Your task to perform on an android device: Set the phone to "Do not disturb". Image 0: 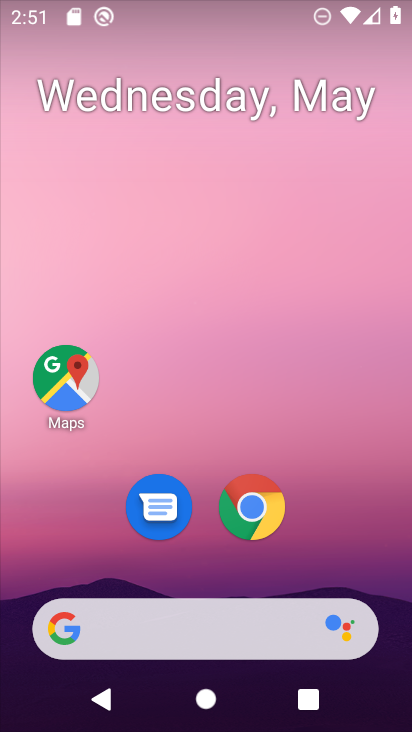
Step 0: drag from (195, 573) to (223, 82)
Your task to perform on an android device: Set the phone to "Do not disturb". Image 1: 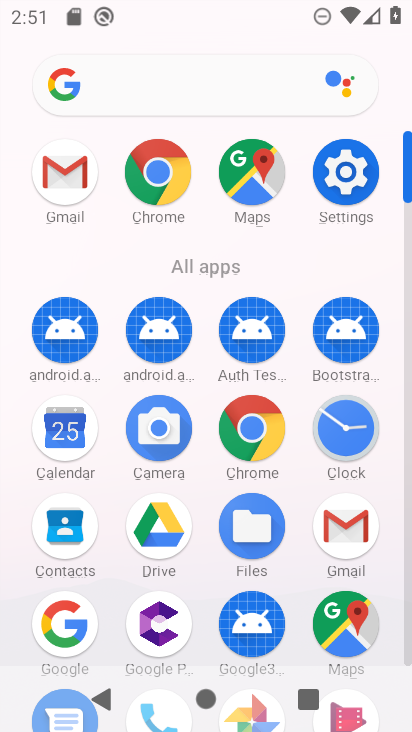
Step 1: click (349, 200)
Your task to perform on an android device: Set the phone to "Do not disturb". Image 2: 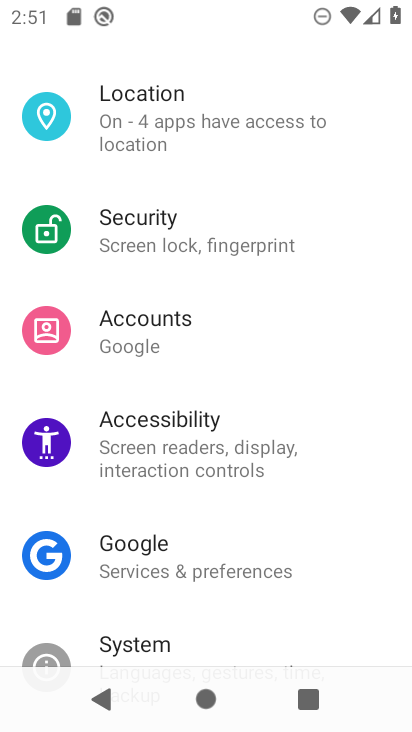
Step 2: drag from (248, 317) to (237, 540)
Your task to perform on an android device: Set the phone to "Do not disturb". Image 3: 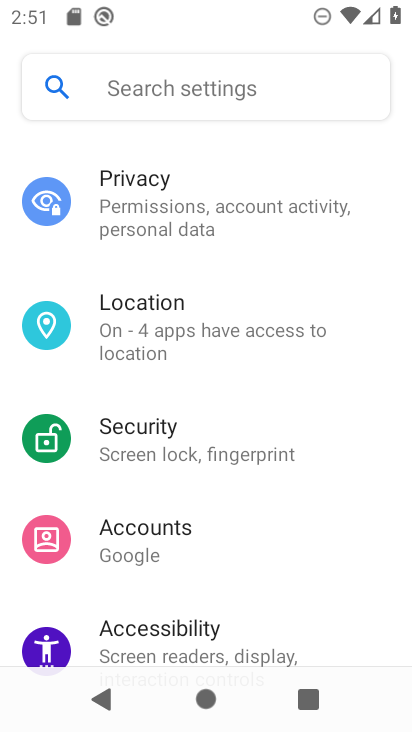
Step 3: drag from (224, 315) to (228, 446)
Your task to perform on an android device: Set the phone to "Do not disturb". Image 4: 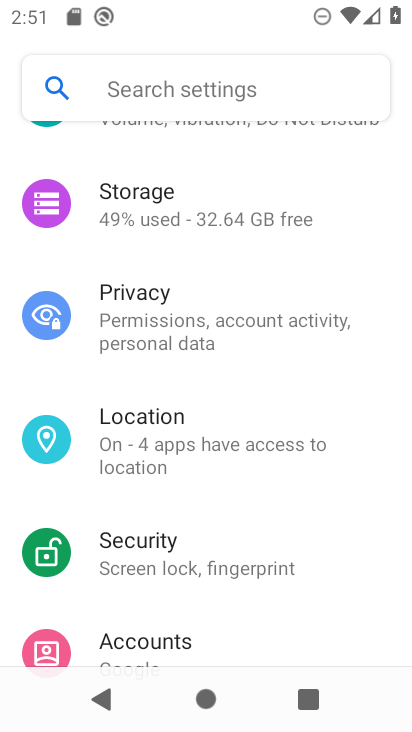
Step 4: drag from (226, 244) to (226, 449)
Your task to perform on an android device: Set the phone to "Do not disturb". Image 5: 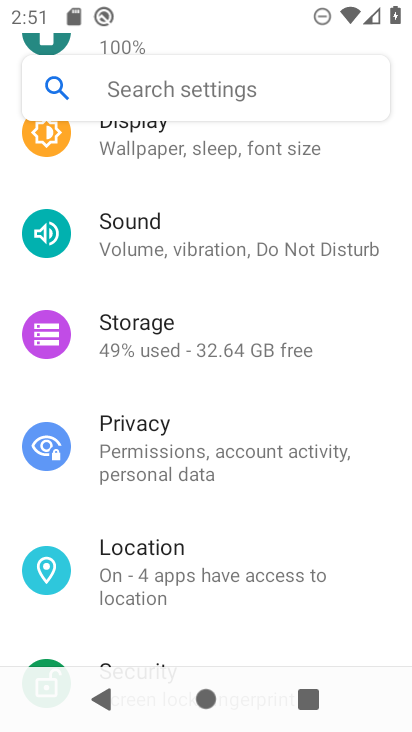
Step 5: click (186, 234)
Your task to perform on an android device: Set the phone to "Do not disturb". Image 6: 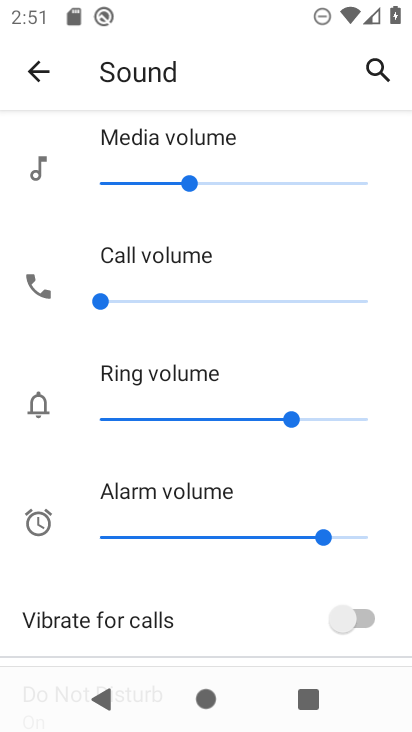
Step 6: drag from (168, 504) to (193, 69)
Your task to perform on an android device: Set the phone to "Do not disturb". Image 7: 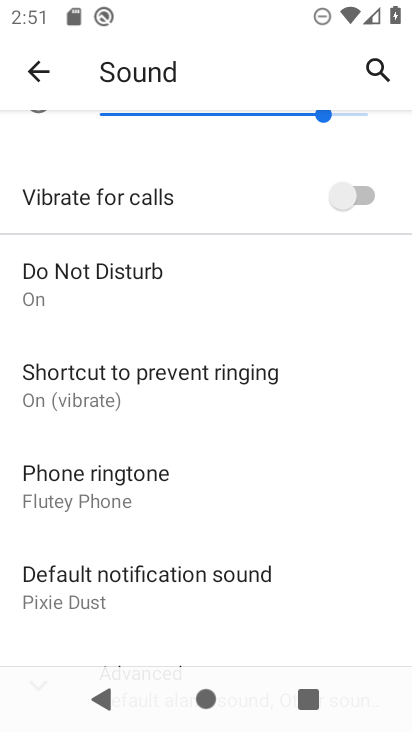
Step 7: click (104, 286)
Your task to perform on an android device: Set the phone to "Do not disturb". Image 8: 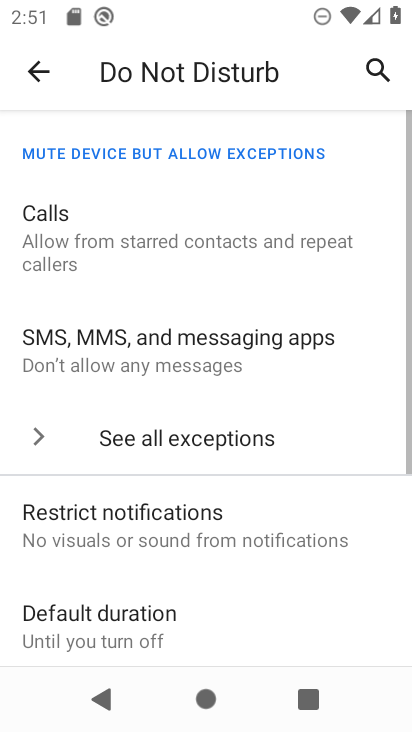
Step 8: task complete